Your task to perform on an android device: Open Android settings Image 0: 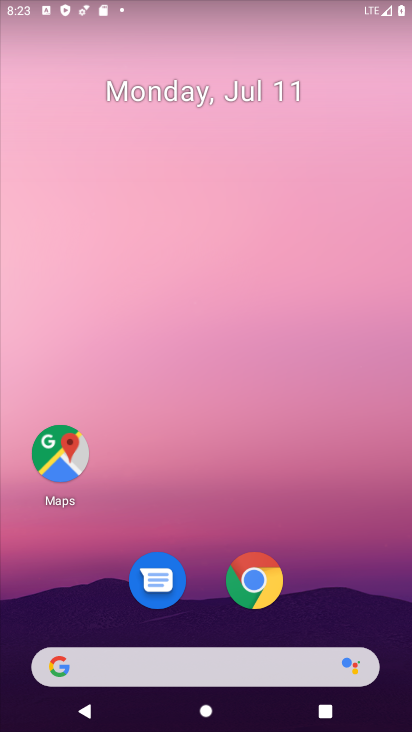
Step 0: drag from (329, 551) to (374, 7)
Your task to perform on an android device: Open Android settings Image 1: 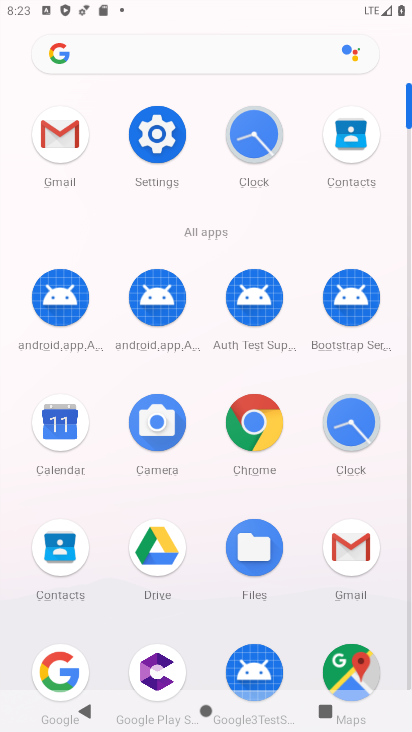
Step 1: click (156, 130)
Your task to perform on an android device: Open Android settings Image 2: 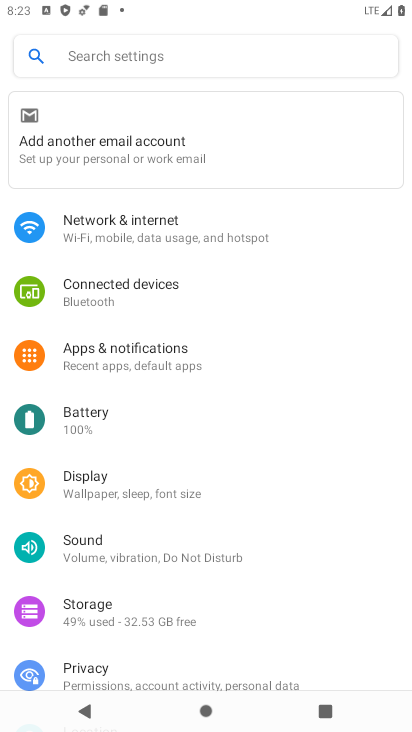
Step 2: drag from (178, 597) to (200, 94)
Your task to perform on an android device: Open Android settings Image 3: 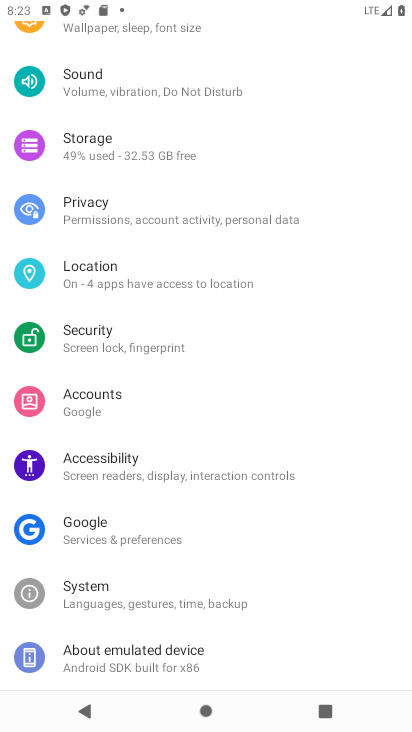
Step 3: click (163, 658)
Your task to perform on an android device: Open Android settings Image 4: 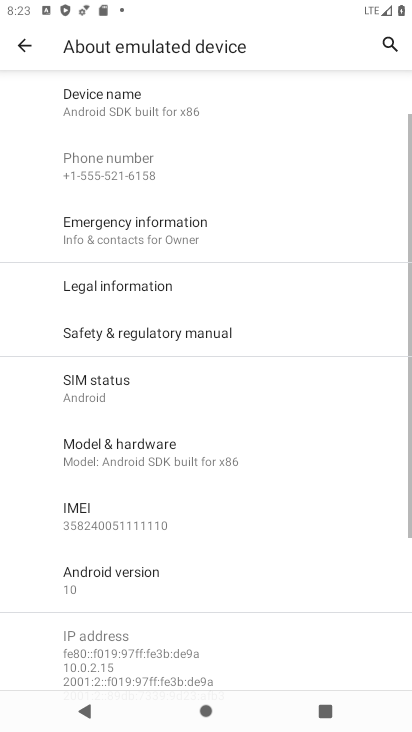
Step 4: task complete